Your task to perform on an android device: clear all cookies in the chrome app Image 0: 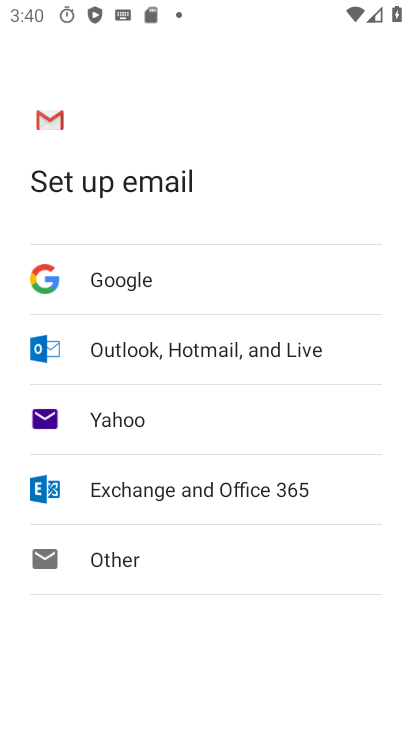
Step 0: press home button
Your task to perform on an android device: clear all cookies in the chrome app Image 1: 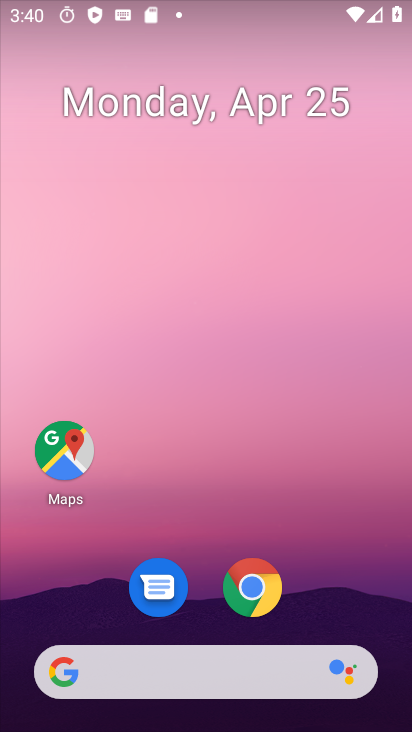
Step 1: drag from (299, 359) to (256, 182)
Your task to perform on an android device: clear all cookies in the chrome app Image 2: 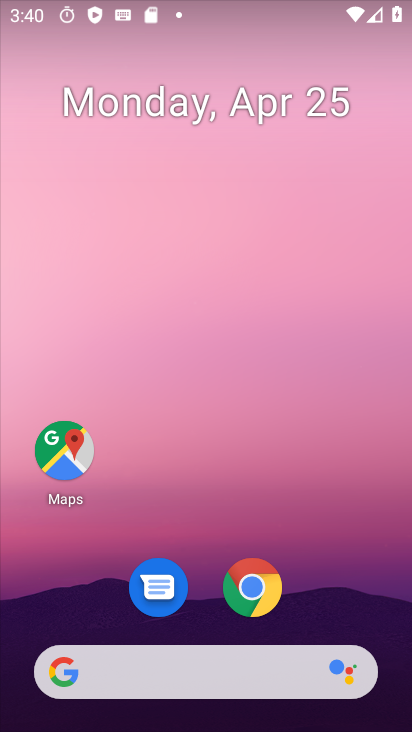
Step 2: drag from (330, 219) to (328, 117)
Your task to perform on an android device: clear all cookies in the chrome app Image 3: 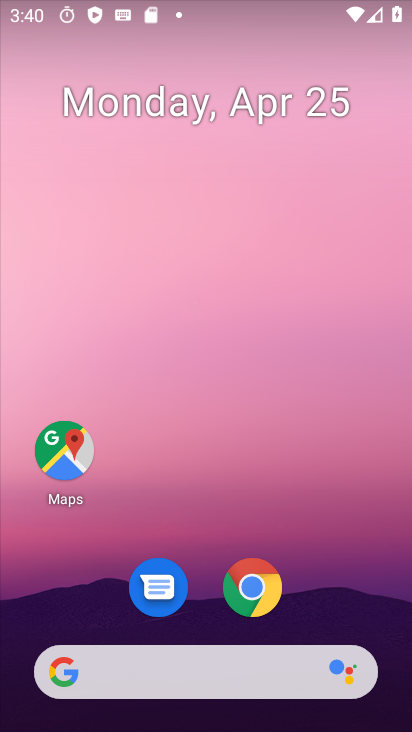
Step 3: drag from (344, 506) to (287, 90)
Your task to perform on an android device: clear all cookies in the chrome app Image 4: 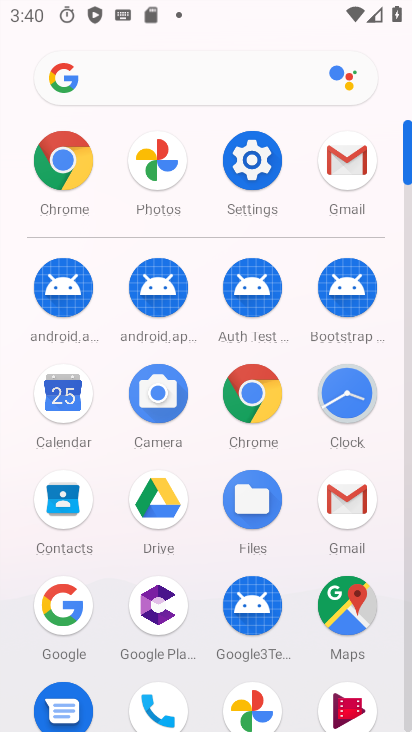
Step 4: click (242, 402)
Your task to perform on an android device: clear all cookies in the chrome app Image 5: 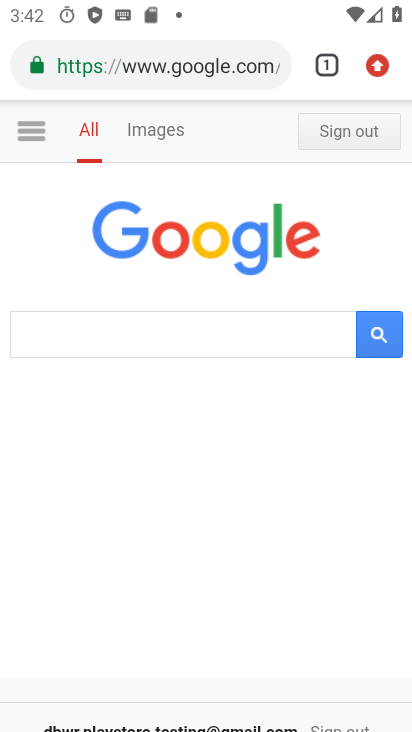
Step 5: drag from (395, 63) to (145, 224)
Your task to perform on an android device: clear all cookies in the chrome app Image 6: 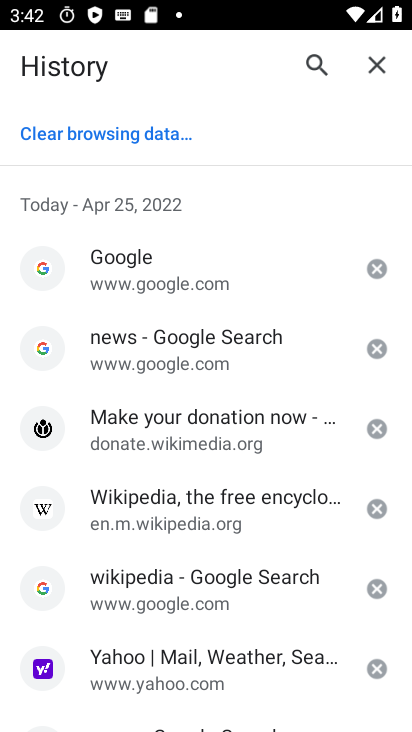
Step 6: click (103, 136)
Your task to perform on an android device: clear all cookies in the chrome app Image 7: 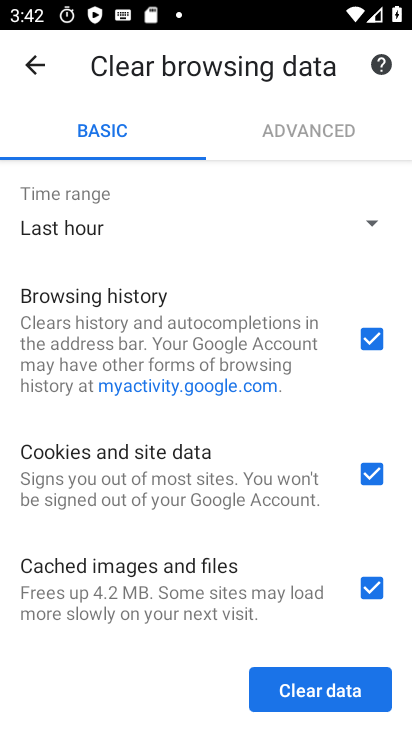
Step 7: click (376, 706)
Your task to perform on an android device: clear all cookies in the chrome app Image 8: 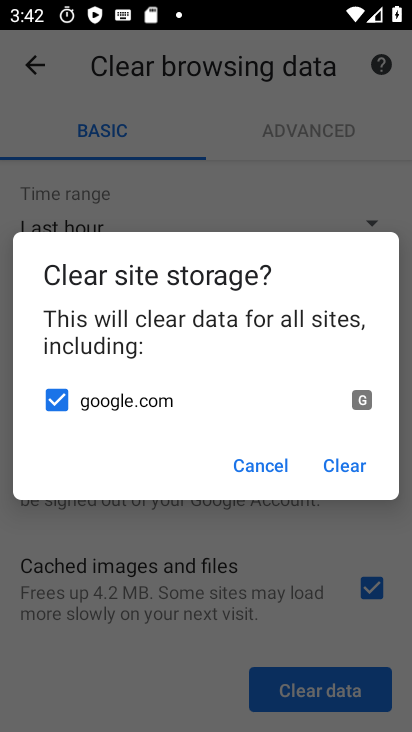
Step 8: click (334, 467)
Your task to perform on an android device: clear all cookies in the chrome app Image 9: 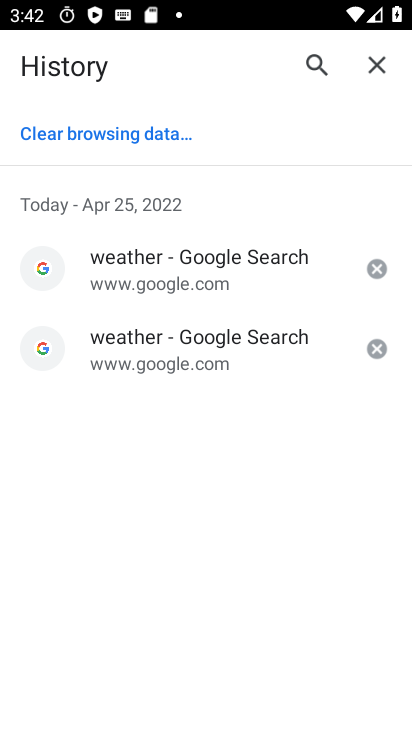
Step 9: task complete